Your task to perform on an android device: What is the news today? Image 0: 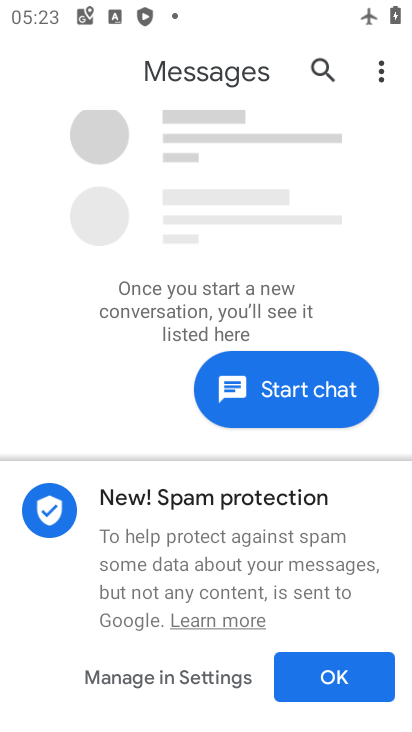
Step 0: press home button
Your task to perform on an android device: What is the news today? Image 1: 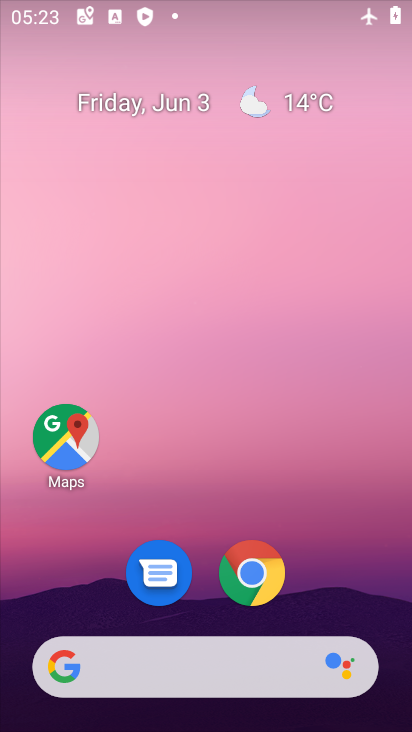
Step 1: drag from (339, 581) to (329, 153)
Your task to perform on an android device: What is the news today? Image 2: 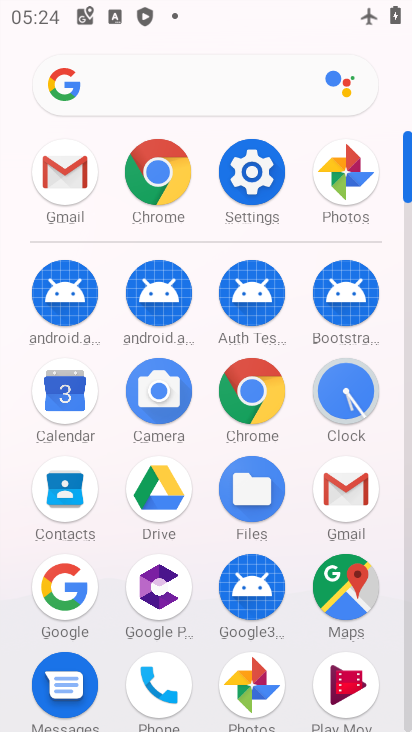
Step 2: click (157, 172)
Your task to perform on an android device: What is the news today? Image 3: 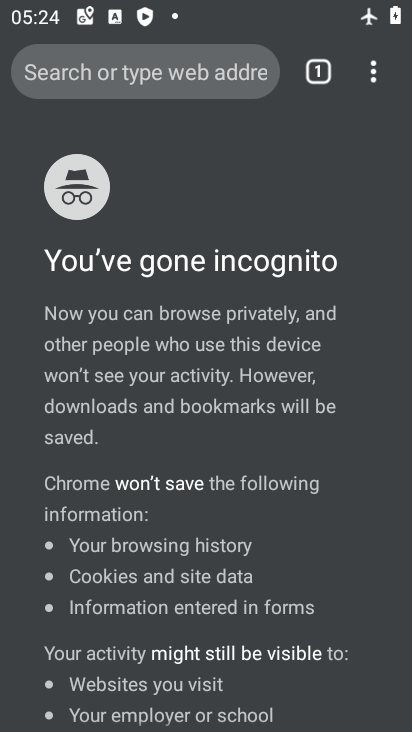
Step 3: click (374, 69)
Your task to perform on an android device: What is the news today? Image 4: 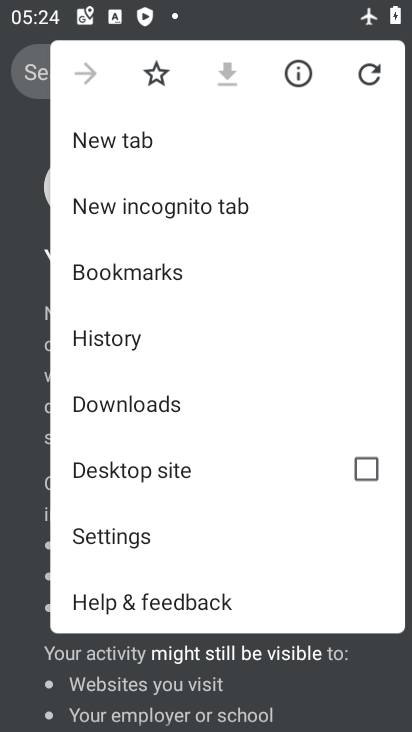
Step 4: click (98, 141)
Your task to perform on an android device: What is the news today? Image 5: 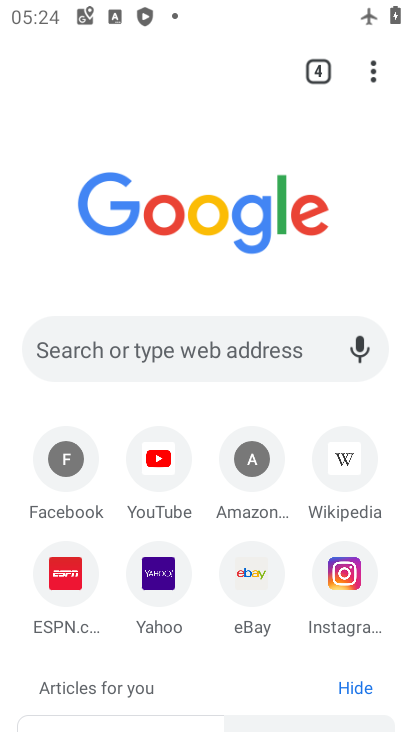
Step 5: click (267, 357)
Your task to perform on an android device: What is the news today? Image 6: 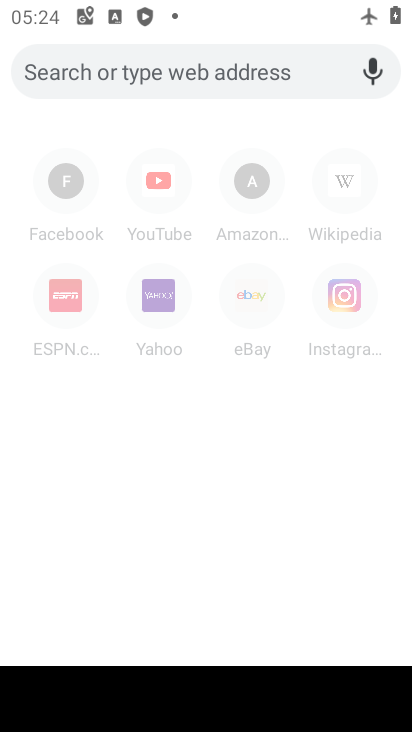
Step 6: type "what is the news today"
Your task to perform on an android device: What is the news today? Image 7: 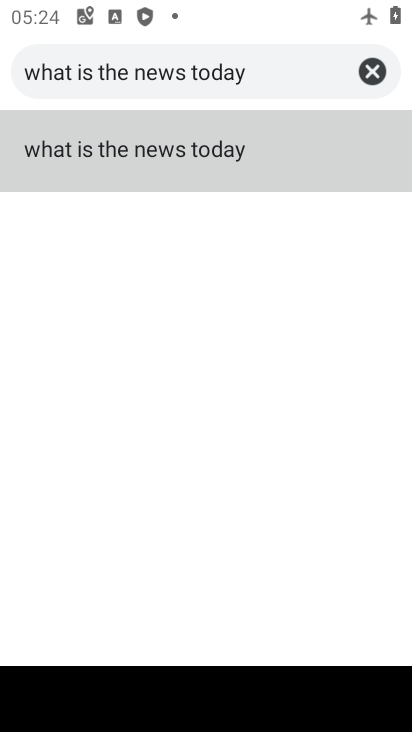
Step 7: click (192, 178)
Your task to perform on an android device: What is the news today? Image 8: 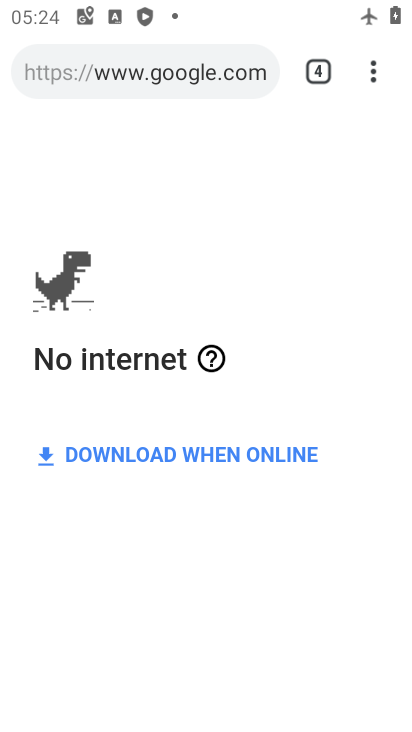
Step 8: task complete